Your task to perform on an android device: uninstall "LiveIn - Share Your Moment" Image 0: 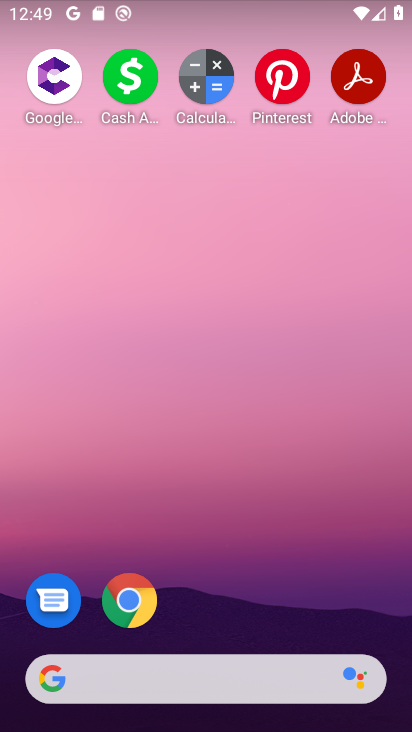
Step 0: drag from (219, 630) to (220, 105)
Your task to perform on an android device: uninstall "LiveIn - Share Your Moment" Image 1: 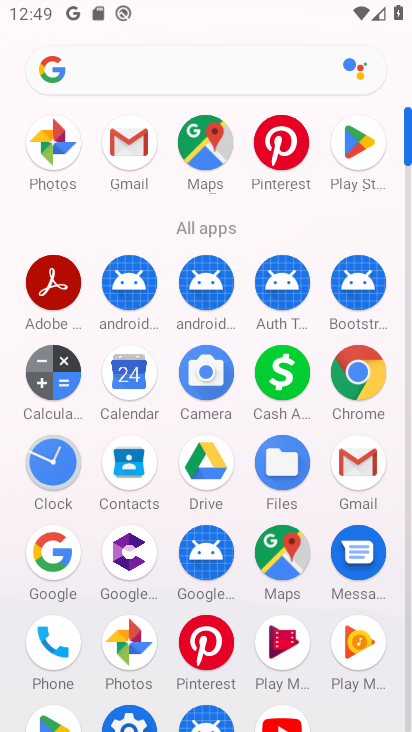
Step 1: click (352, 139)
Your task to perform on an android device: uninstall "LiveIn - Share Your Moment" Image 2: 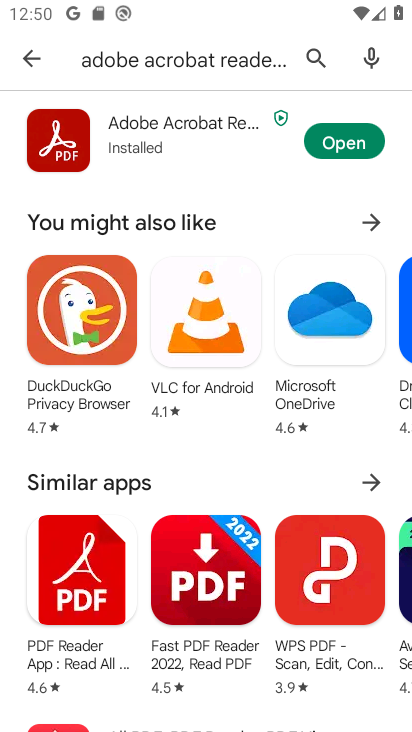
Step 2: click (317, 54)
Your task to perform on an android device: uninstall "LiveIn - Share Your Moment" Image 3: 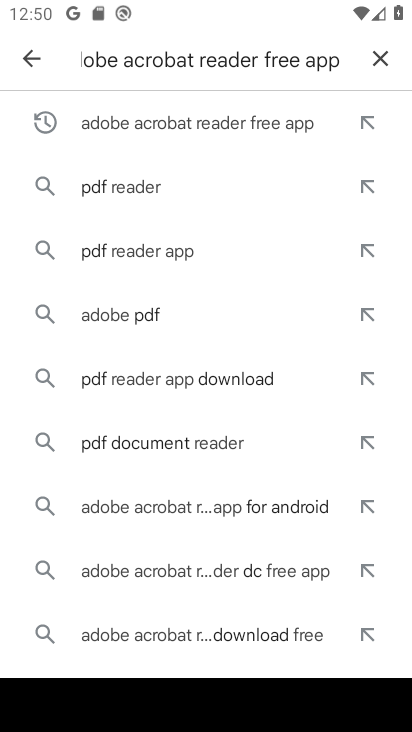
Step 3: click (371, 56)
Your task to perform on an android device: uninstall "LiveIn - Share Your Moment" Image 4: 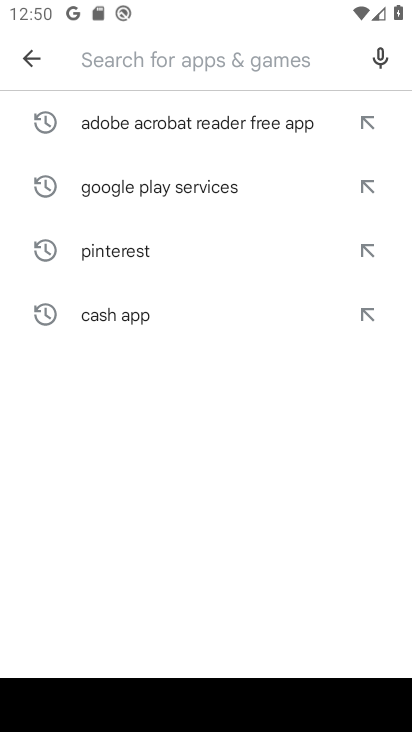
Step 4: type "LiveIn - Share Your Moment"
Your task to perform on an android device: uninstall "LiveIn - Share Your Moment" Image 5: 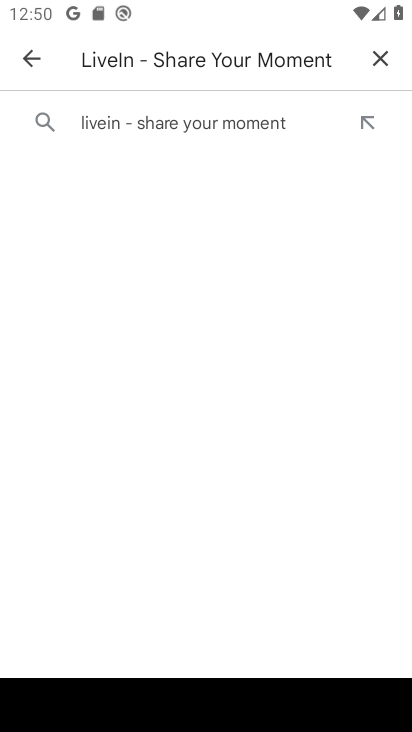
Step 5: click (252, 126)
Your task to perform on an android device: uninstall "LiveIn - Share Your Moment" Image 6: 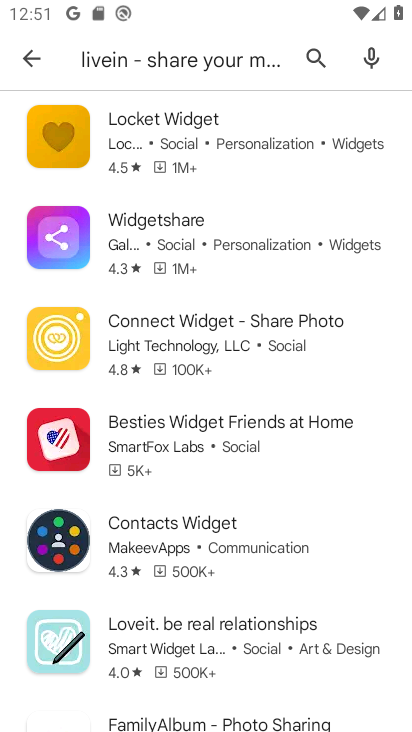
Step 6: task complete